Your task to perform on an android device: Go to Reddit.com Image 0: 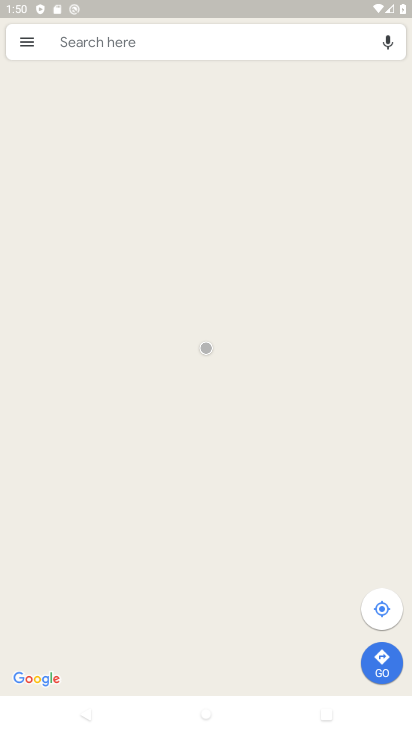
Step 0: press home button
Your task to perform on an android device: Go to Reddit.com Image 1: 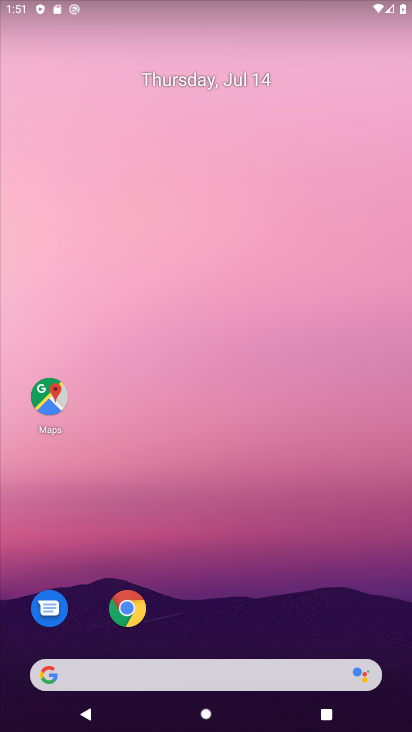
Step 1: drag from (233, 725) to (235, 118)
Your task to perform on an android device: Go to Reddit.com Image 2: 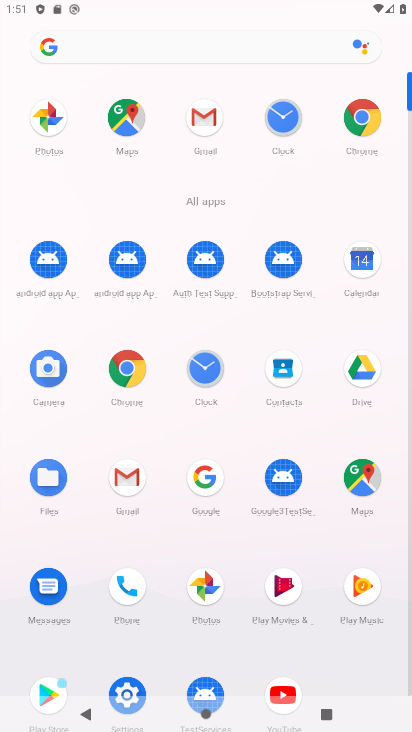
Step 2: click (120, 369)
Your task to perform on an android device: Go to Reddit.com Image 3: 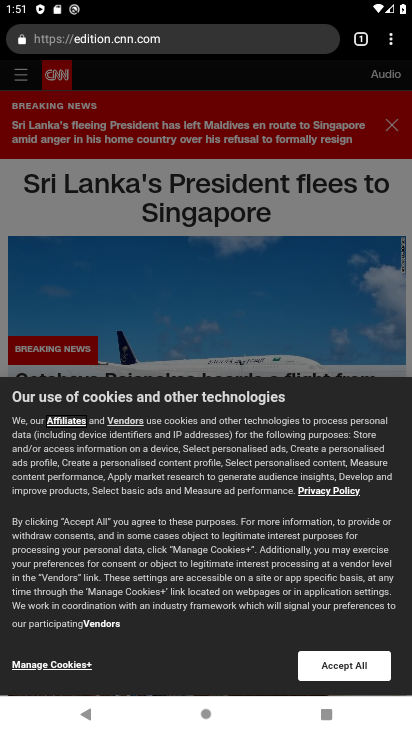
Step 3: click (392, 48)
Your task to perform on an android device: Go to Reddit.com Image 4: 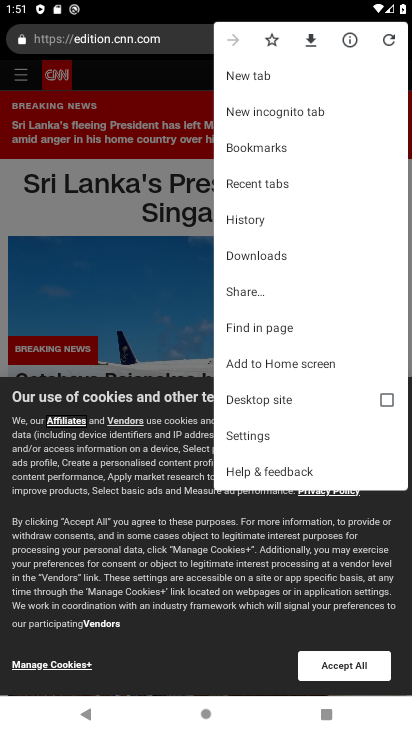
Step 4: click (250, 74)
Your task to perform on an android device: Go to Reddit.com Image 5: 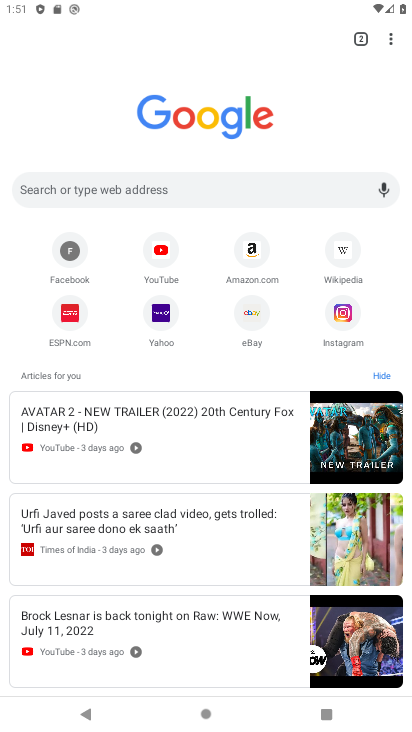
Step 5: click (171, 191)
Your task to perform on an android device: Go to Reddit.com Image 6: 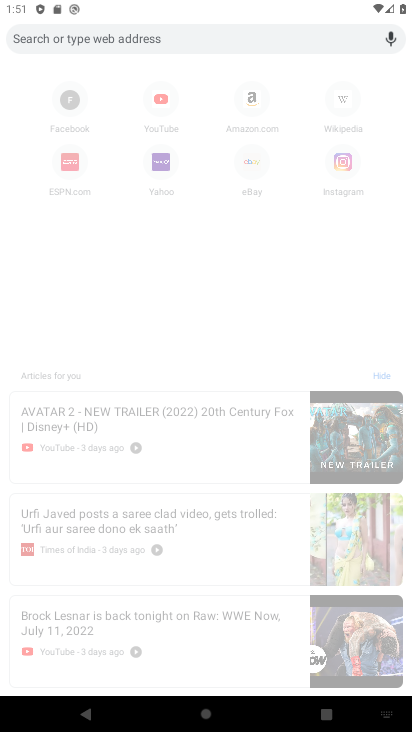
Step 6: type "Reddit.com"
Your task to perform on an android device: Go to Reddit.com Image 7: 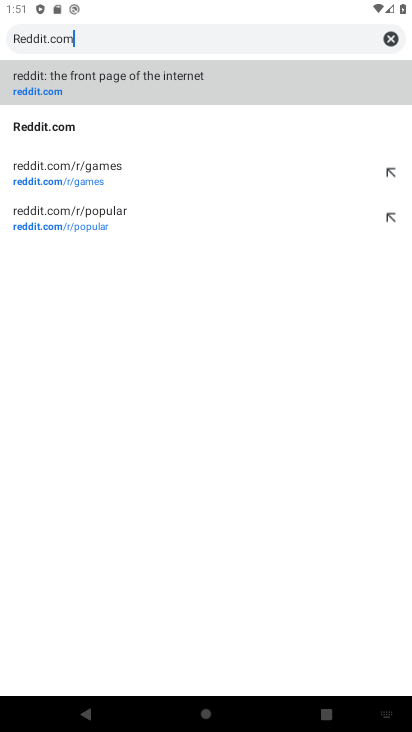
Step 7: click (52, 123)
Your task to perform on an android device: Go to Reddit.com Image 8: 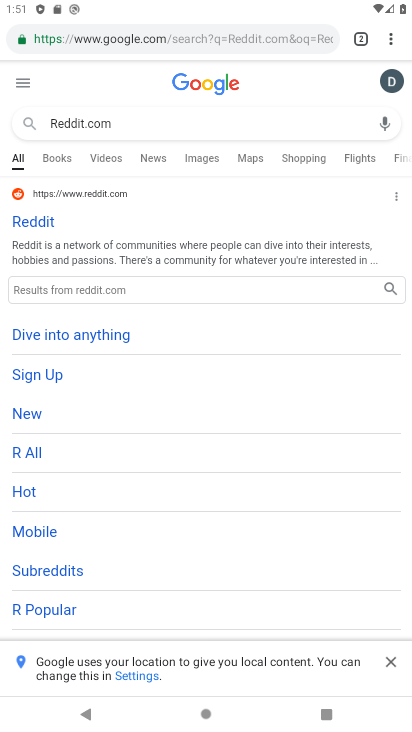
Step 8: click (25, 222)
Your task to perform on an android device: Go to Reddit.com Image 9: 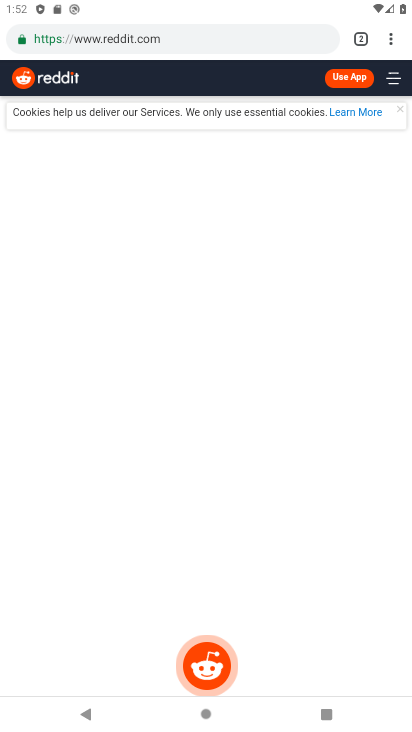
Step 9: task complete